Your task to perform on an android device: turn off translation in the chrome app Image 0: 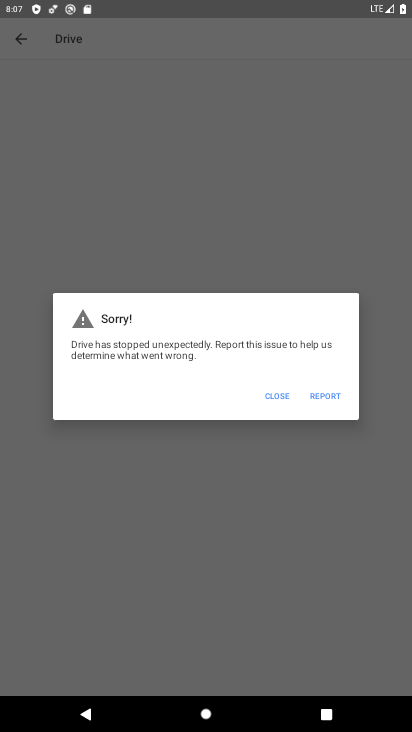
Step 0: press home button
Your task to perform on an android device: turn off translation in the chrome app Image 1: 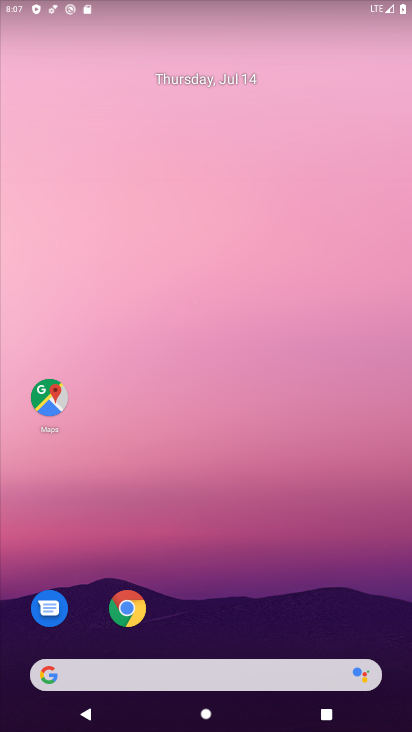
Step 1: click (124, 607)
Your task to perform on an android device: turn off translation in the chrome app Image 2: 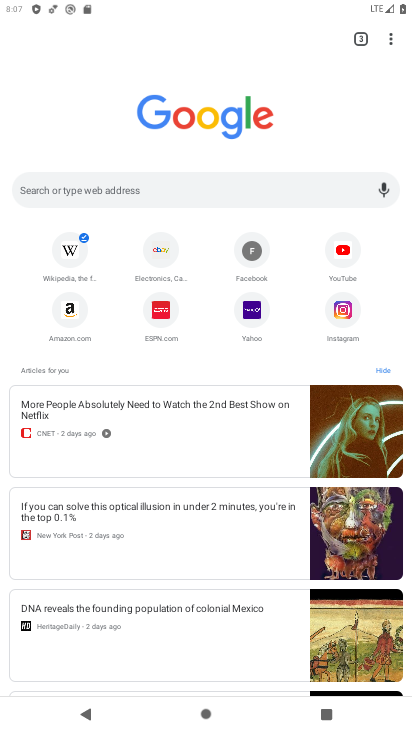
Step 2: click (390, 36)
Your task to perform on an android device: turn off translation in the chrome app Image 3: 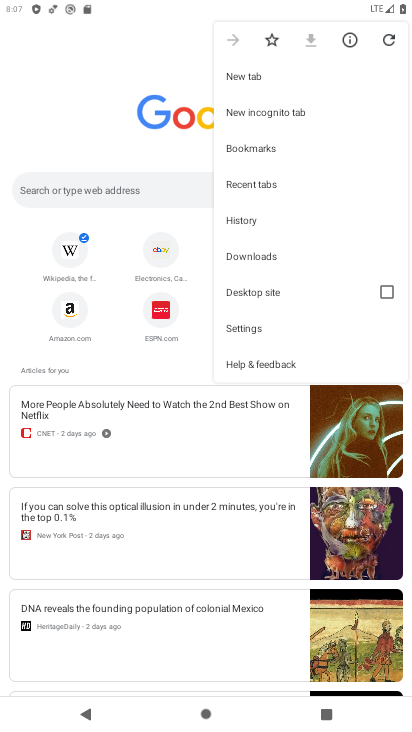
Step 3: click (252, 322)
Your task to perform on an android device: turn off translation in the chrome app Image 4: 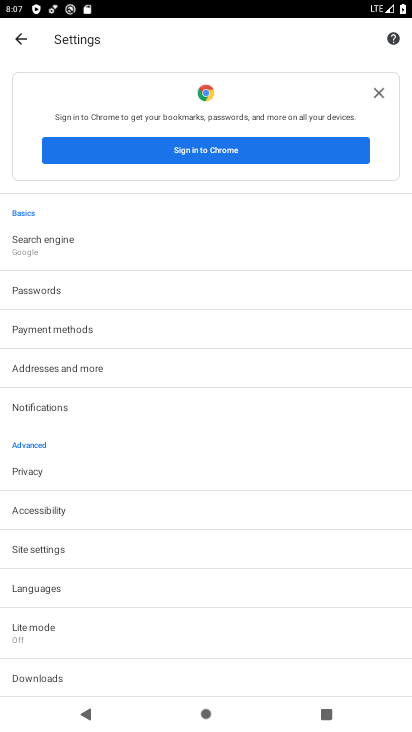
Step 4: click (46, 584)
Your task to perform on an android device: turn off translation in the chrome app Image 5: 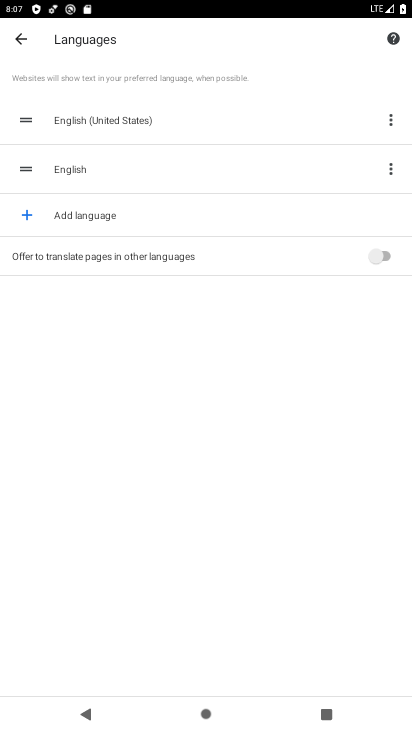
Step 5: task complete